Your task to perform on an android device: Search for flights from Zurich to Helsinki Image 0: 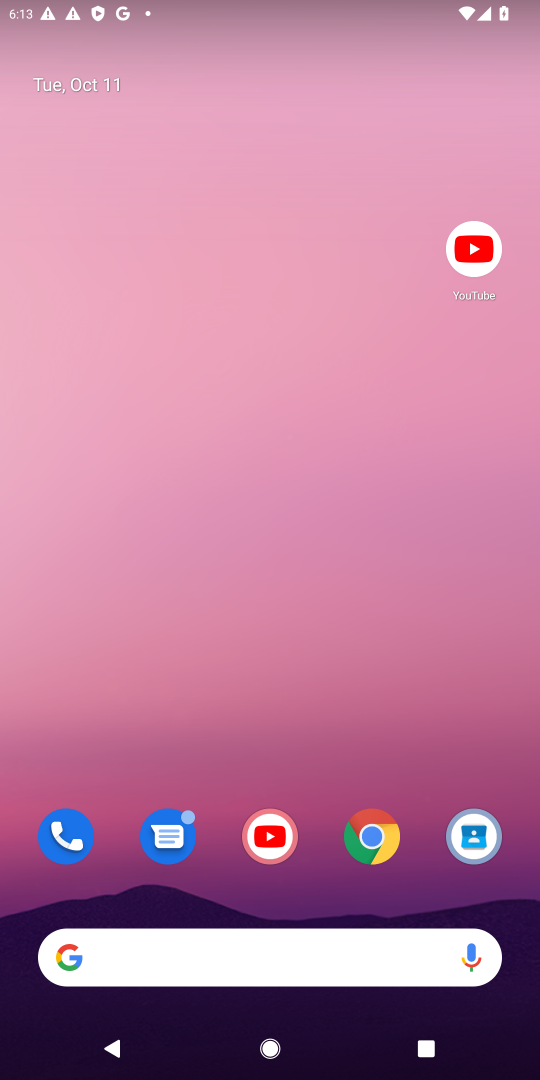
Step 0: click (368, 826)
Your task to perform on an android device: Search for flights from Zurich to Helsinki Image 1: 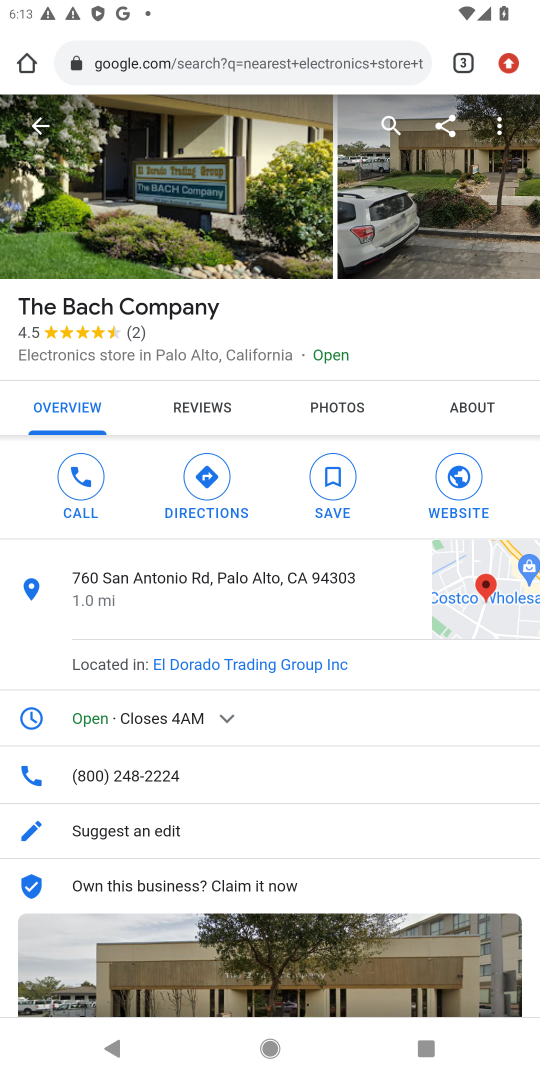
Step 1: click (354, 68)
Your task to perform on an android device: Search for flights from Zurich to Helsinki Image 2: 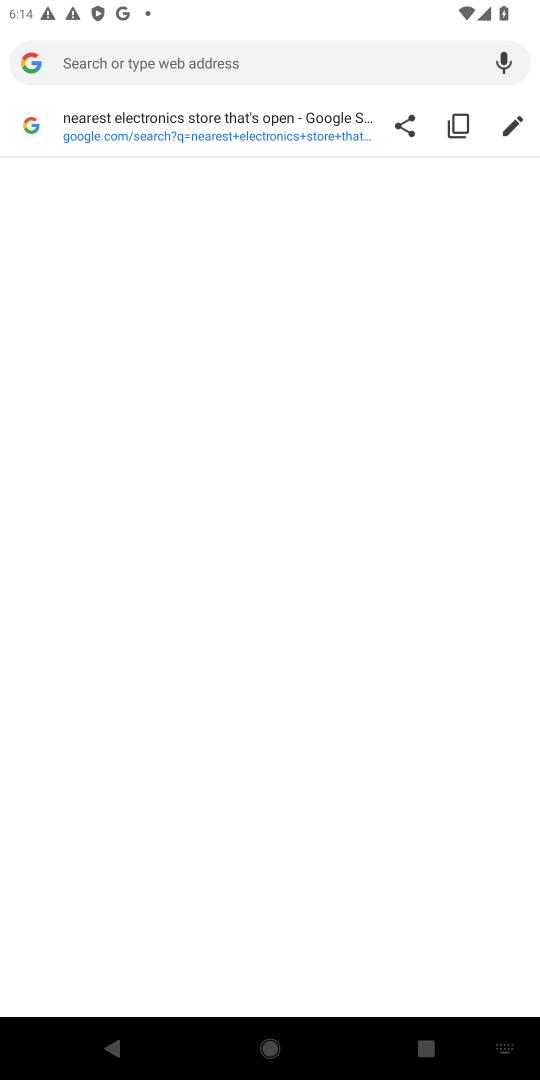
Step 2: type "flights from Zurich to Helsinki"
Your task to perform on an android device: Search for flights from Zurich to Helsinki Image 3: 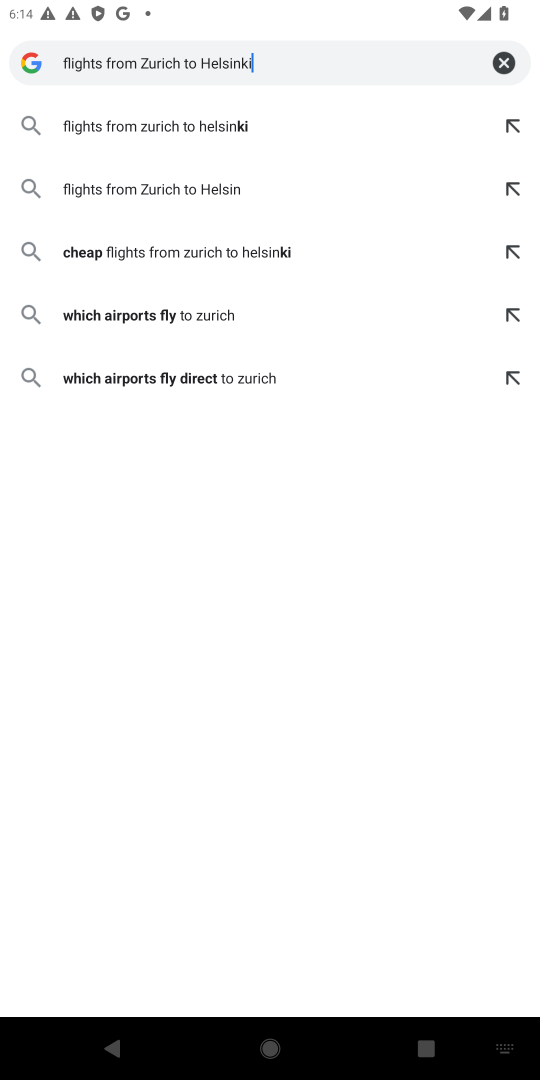
Step 3: press enter
Your task to perform on an android device: Search for flights from Zurich to Helsinki Image 4: 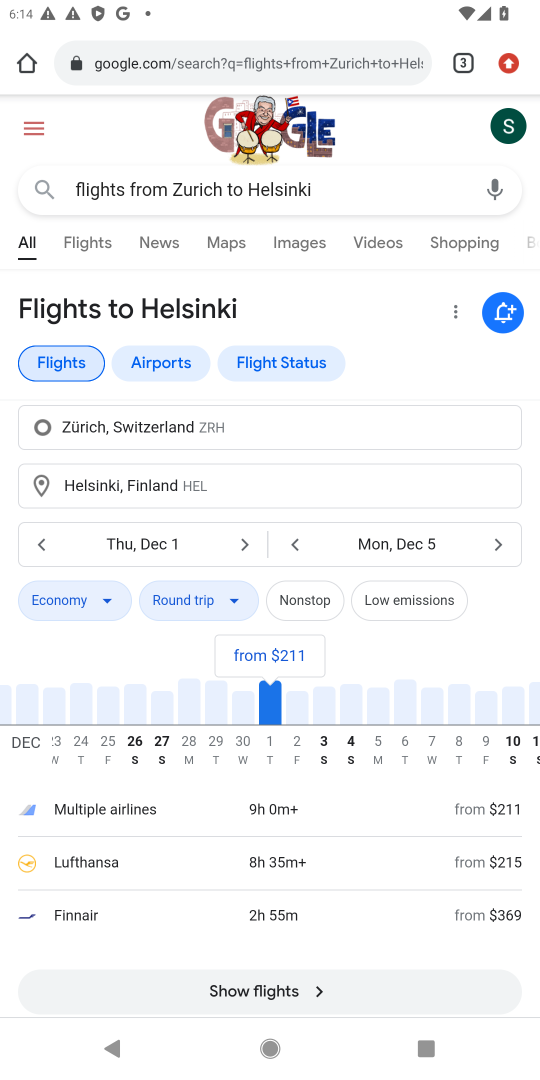
Step 4: drag from (296, 894) to (533, 417)
Your task to perform on an android device: Search for flights from Zurich to Helsinki Image 5: 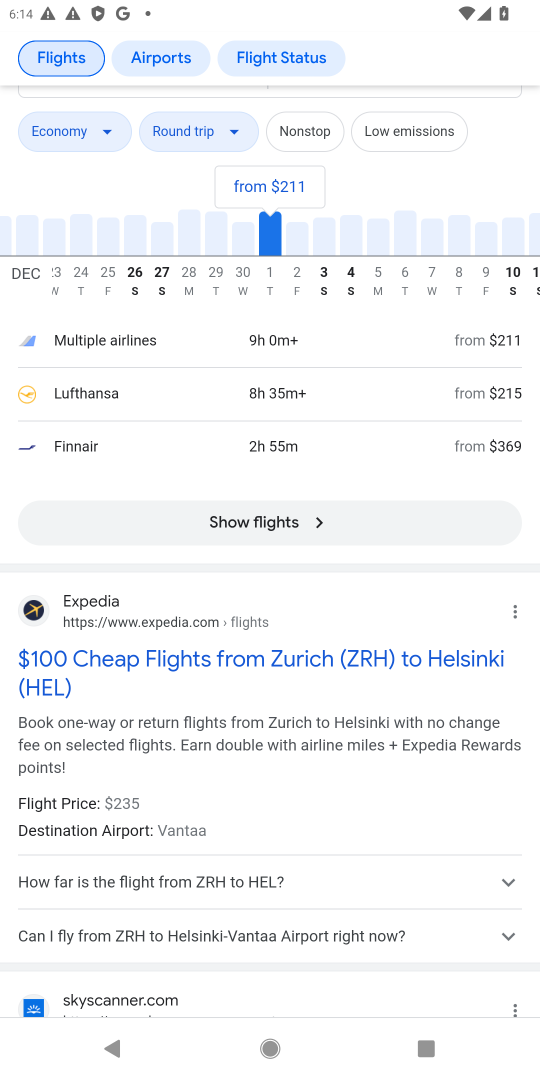
Step 5: click (272, 518)
Your task to perform on an android device: Search for flights from Zurich to Helsinki Image 6: 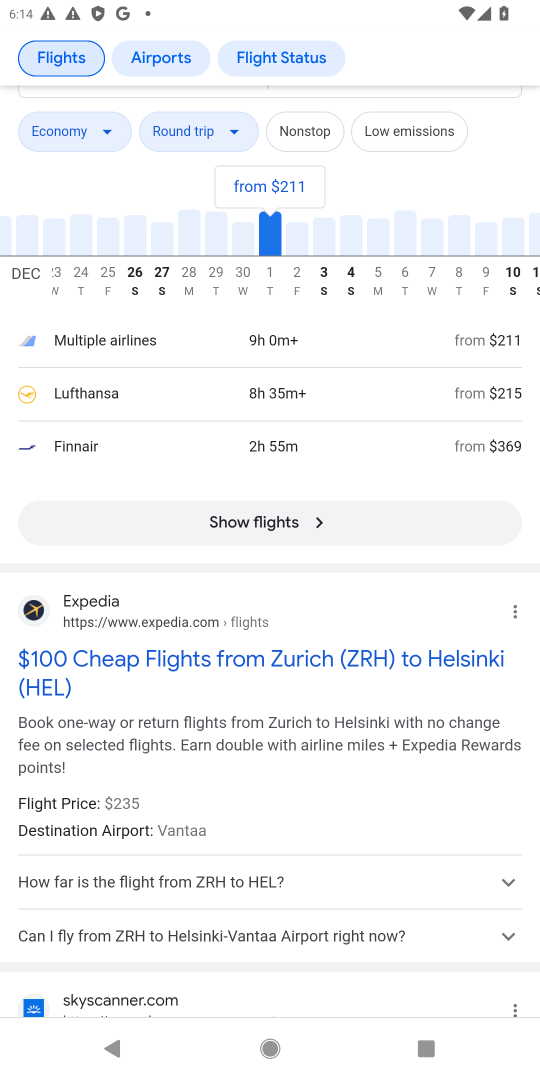
Step 6: click (266, 518)
Your task to perform on an android device: Search for flights from Zurich to Helsinki Image 7: 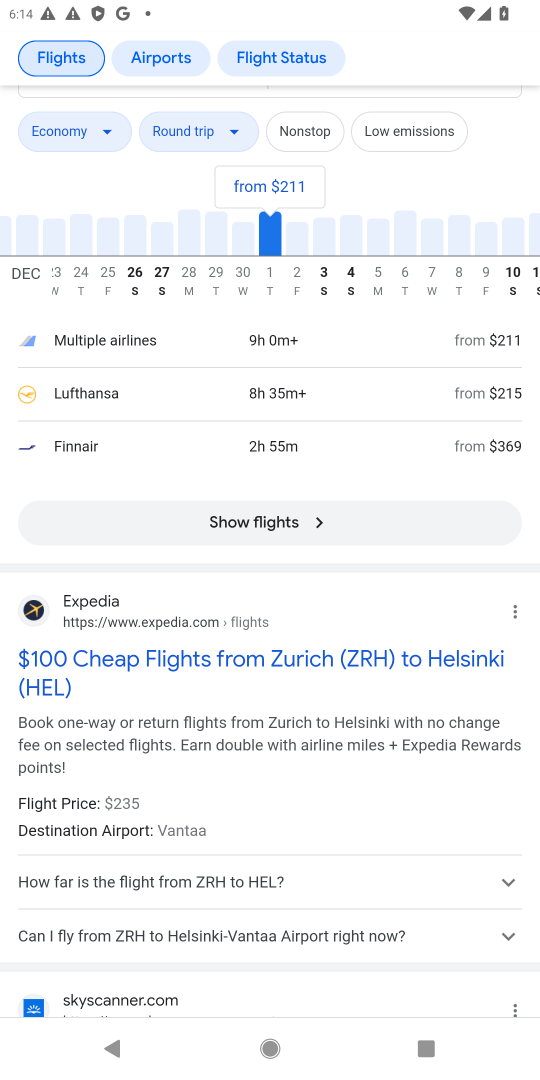
Step 7: click (325, 517)
Your task to perform on an android device: Search for flights from Zurich to Helsinki Image 8: 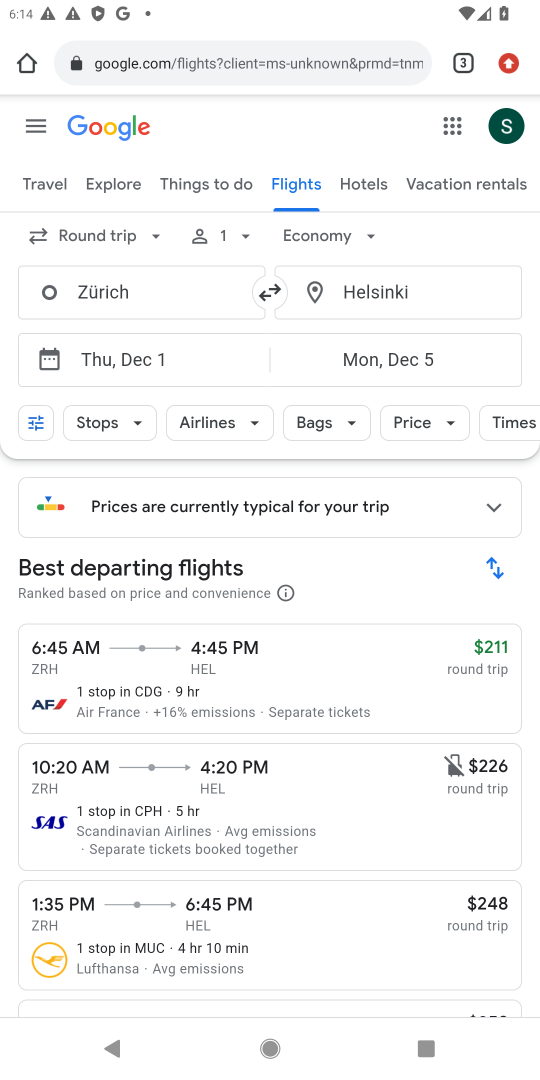
Step 8: task complete